Your task to perform on an android device: toggle airplane mode Image 0: 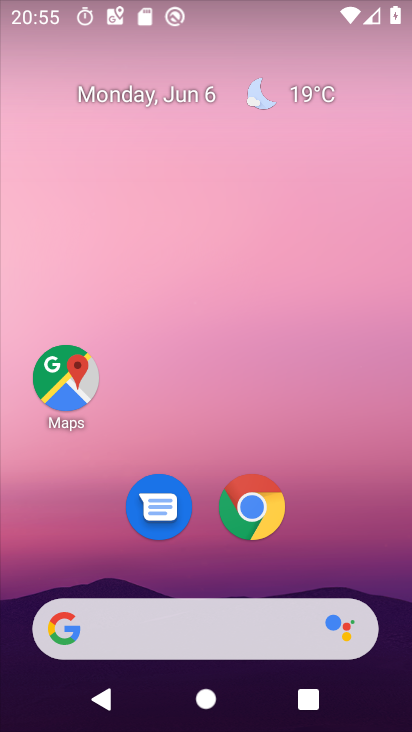
Step 0: press home button
Your task to perform on an android device: toggle airplane mode Image 1: 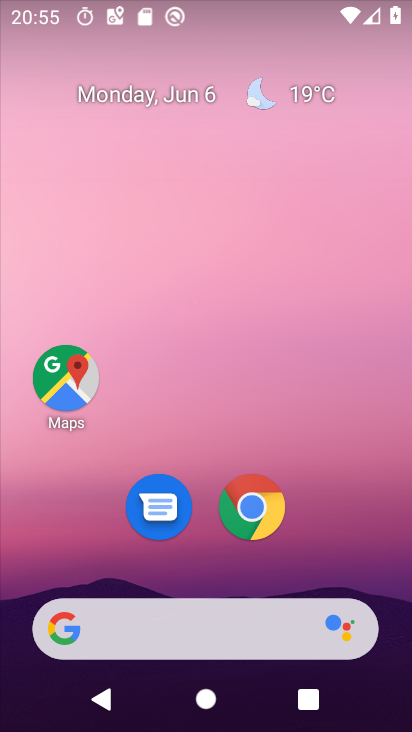
Step 1: drag from (368, 7) to (370, 173)
Your task to perform on an android device: toggle airplane mode Image 2: 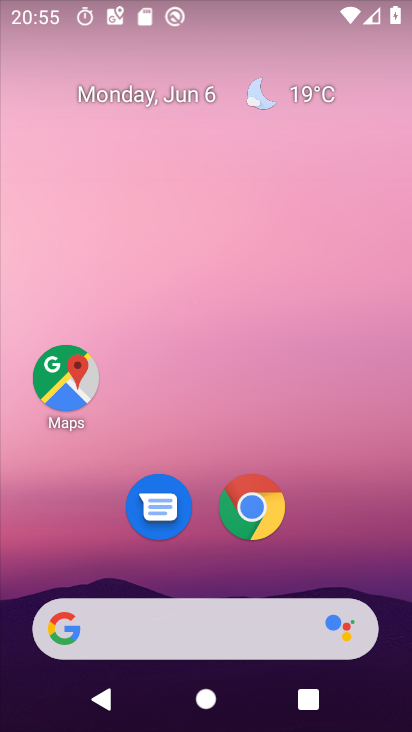
Step 2: drag from (365, 26) to (346, 722)
Your task to perform on an android device: toggle airplane mode Image 3: 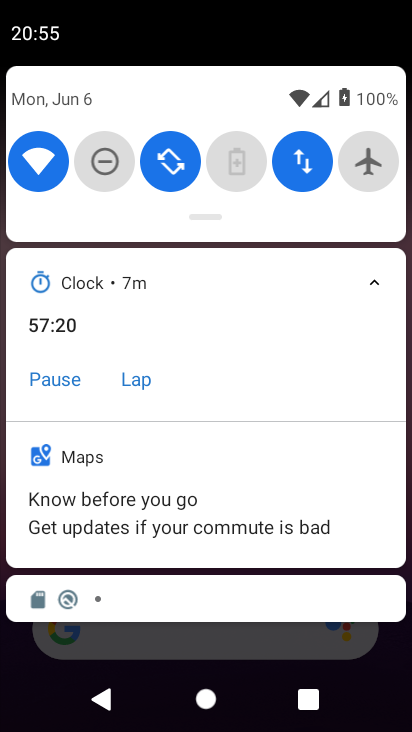
Step 3: click (358, 168)
Your task to perform on an android device: toggle airplane mode Image 4: 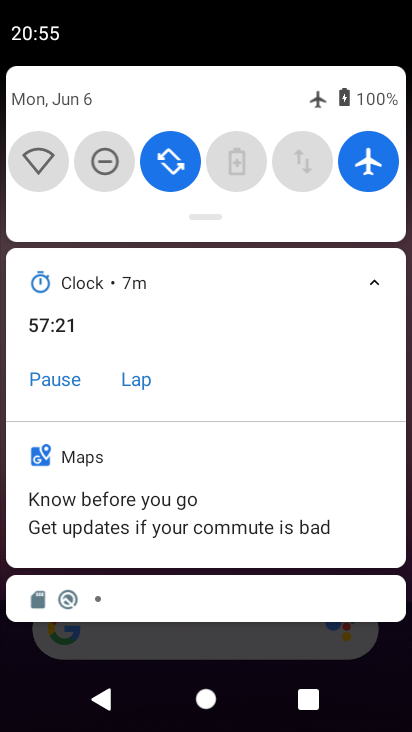
Step 4: task complete